Your task to perform on an android device: toggle data saver in the chrome app Image 0: 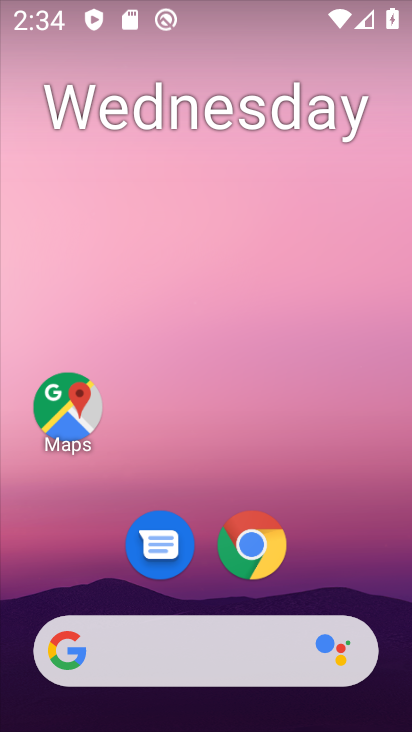
Step 0: drag from (290, 690) to (230, 226)
Your task to perform on an android device: toggle data saver in the chrome app Image 1: 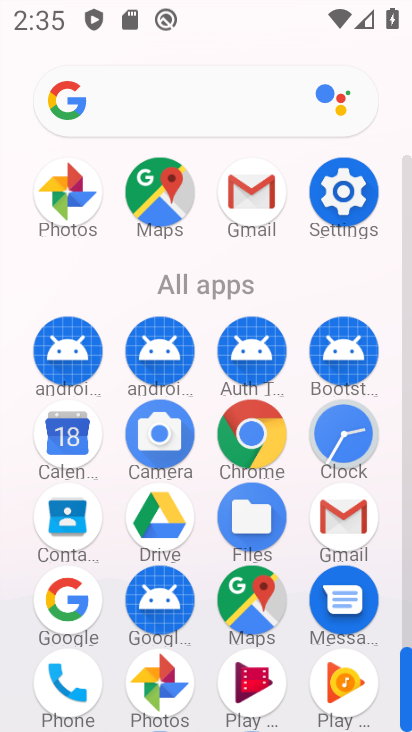
Step 1: click (260, 427)
Your task to perform on an android device: toggle data saver in the chrome app Image 2: 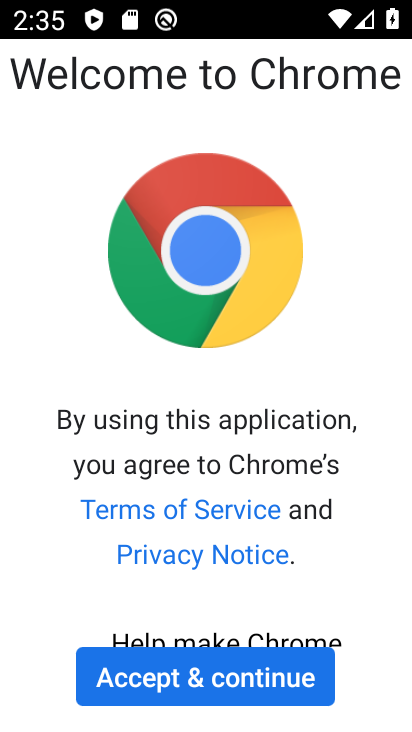
Step 2: click (193, 674)
Your task to perform on an android device: toggle data saver in the chrome app Image 3: 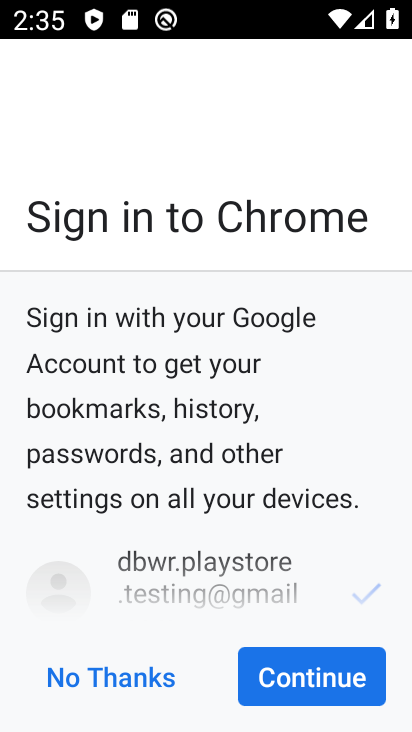
Step 3: click (296, 682)
Your task to perform on an android device: toggle data saver in the chrome app Image 4: 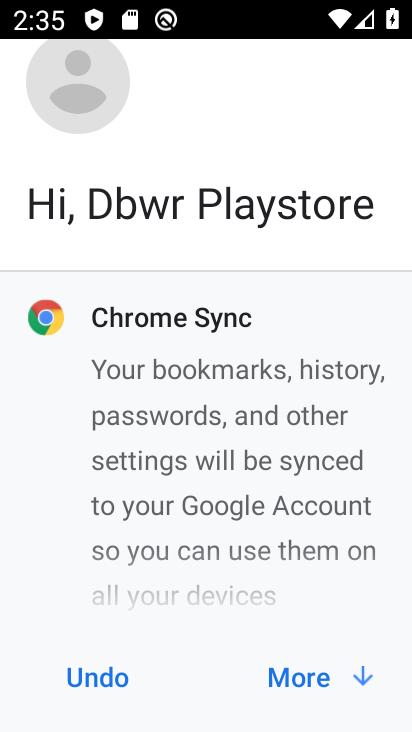
Step 4: click (357, 669)
Your task to perform on an android device: toggle data saver in the chrome app Image 5: 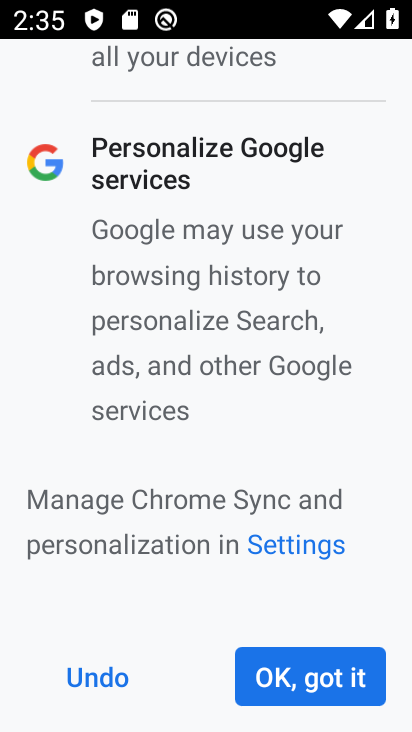
Step 5: click (339, 673)
Your task to perform on an android device: toggle data saver in the chrome app Image 6: 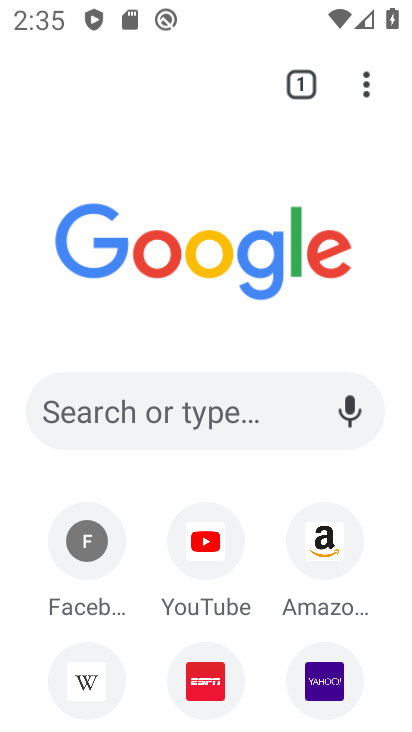
Step 6: click (371, 100)
Your task to perform on an android device: toggle data saver in the chrome app Image 7: 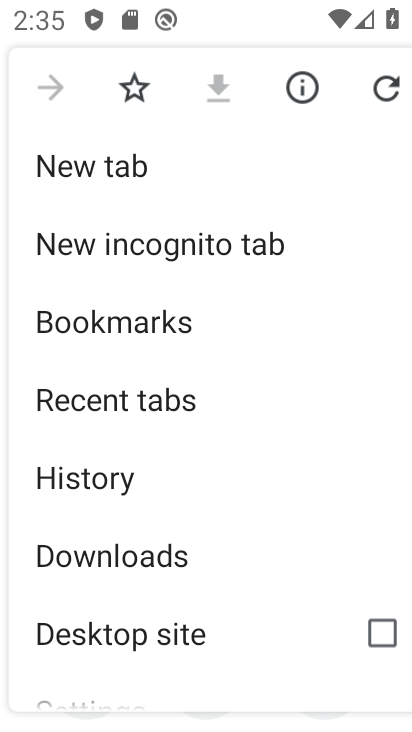
Step 7: drag from (184, 508) to (258, 188)
Your task to perform on an android device: toggle data saver in the chrome app Image 8: 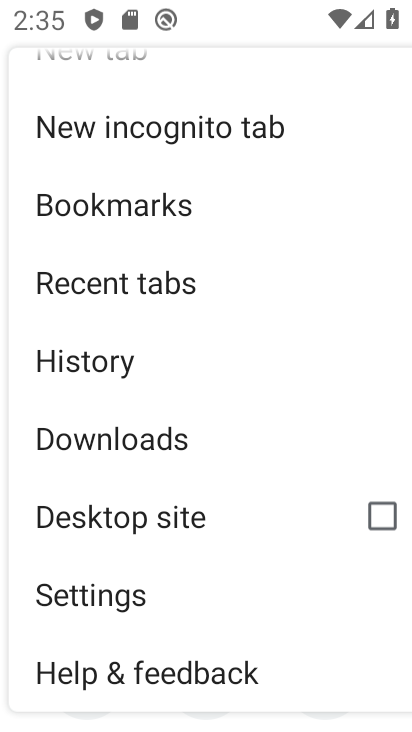
Step 8: click (112, 615)
Your task to perform on an android device: toggle data saver in the chrome app Image 9: 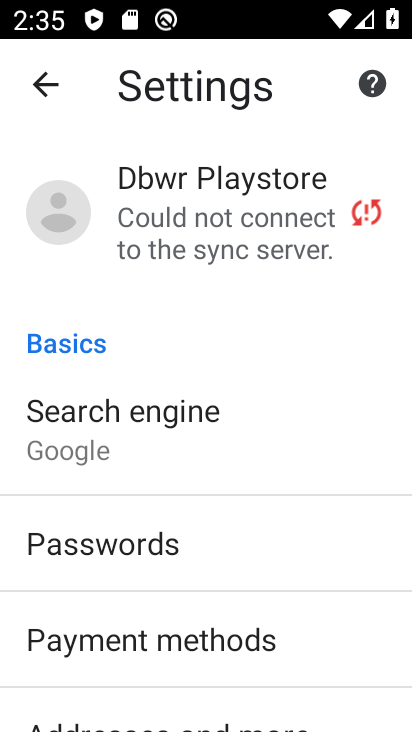
Step 9: drag from (118, 592) to (157, 386)
Your task to perform on an android device: toggle data saver in the chrome app Image 10: 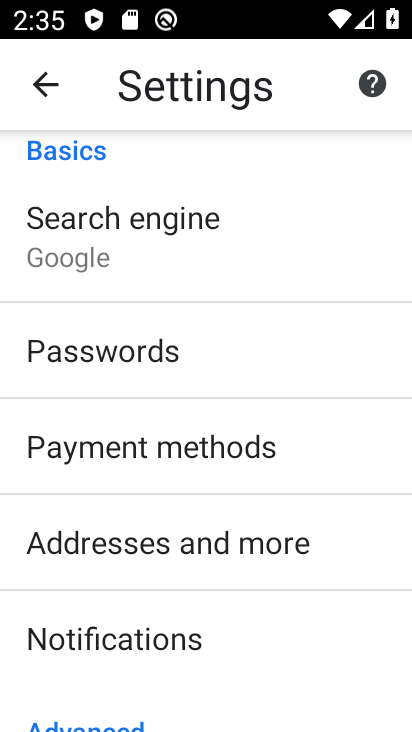
Step 10: drag from (147, 608) to (145, 433)
Your task to perform on an android device: toggle data saver in the chrome app Image 11: 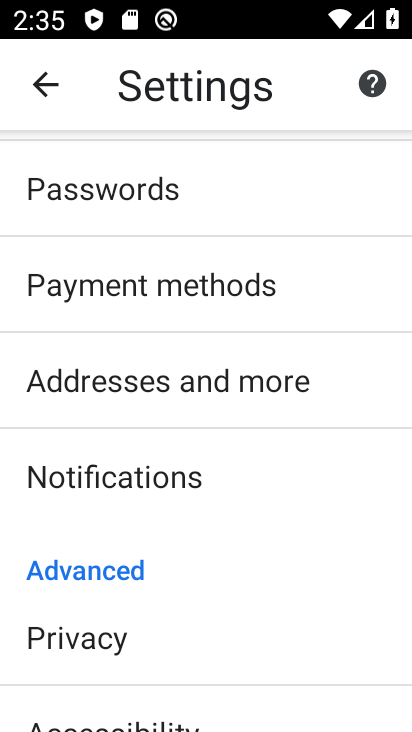
Step 11: drag from (118, 617) to (179, 330)
Your task to perform on an android device: toggle data saver in the chrome app Image 12: 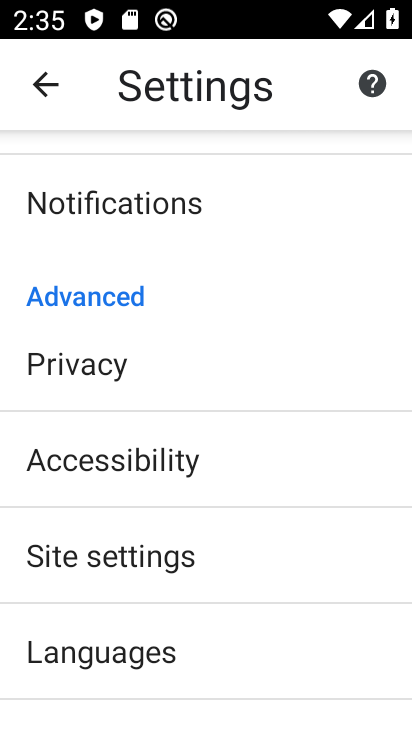
Step 12: drag from (124, 647) to (137, 464)
Your task to perform on an android device: toggle data saver in the chrome app Image 13: 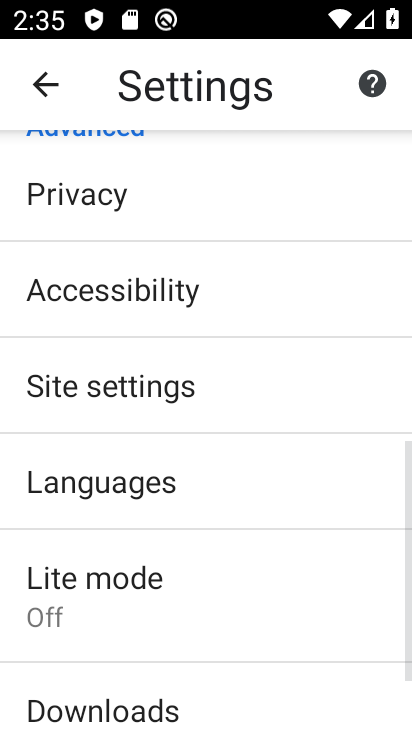
Step 13: click (90, 637)
Your task to perform on an android device: toggle data saver in the chrome app Image 14: 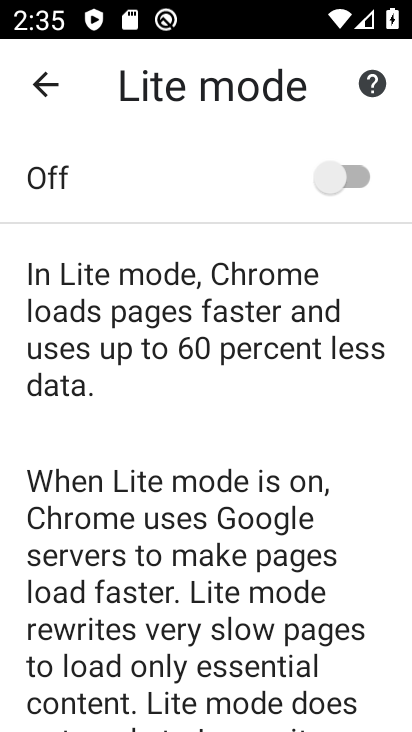
Step 14: task complete